Your task to perform on an android device: Open wifi settings Image 0: 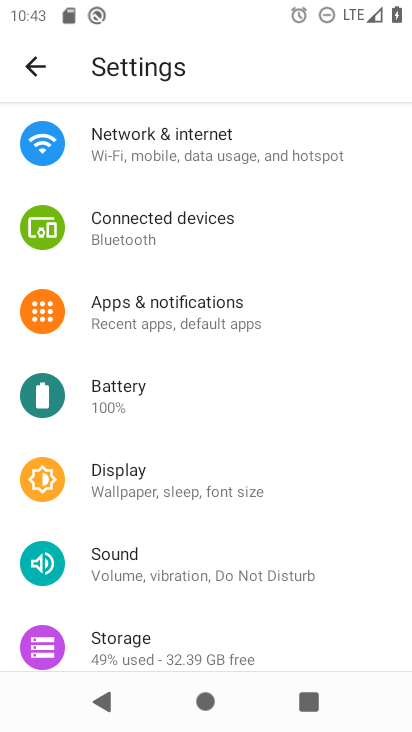
Step 0: click (238, 144)
Your task to perform on an android device: Open wifi settings Image 1: 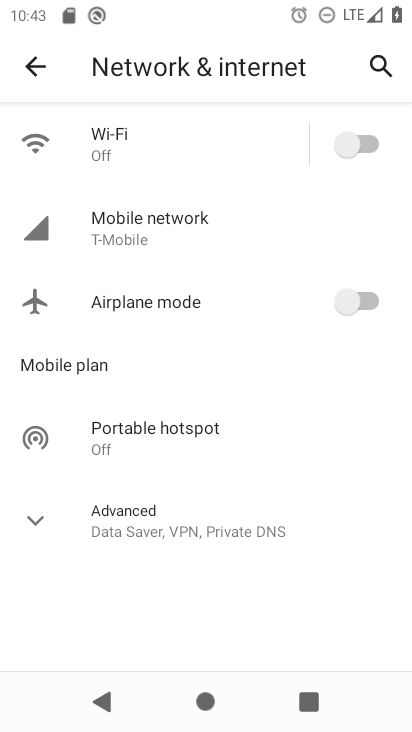
Step 1: click (147, 151)
Your task to perform on an android device: Open wifi settings Image 2: 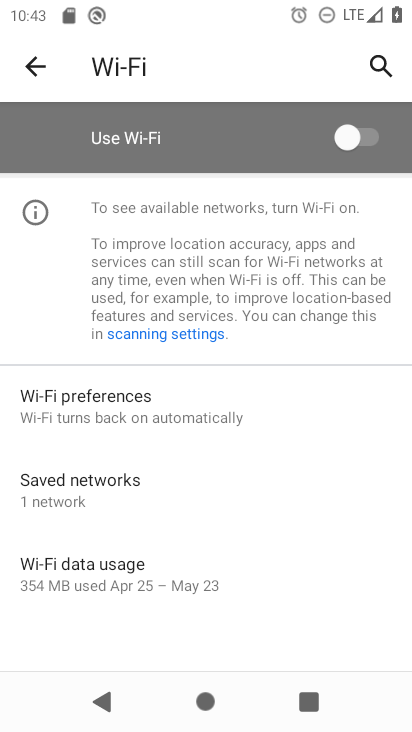
Step 2: task complete